Your task to perform on an android device: turn off notifications in google photos Image 0: 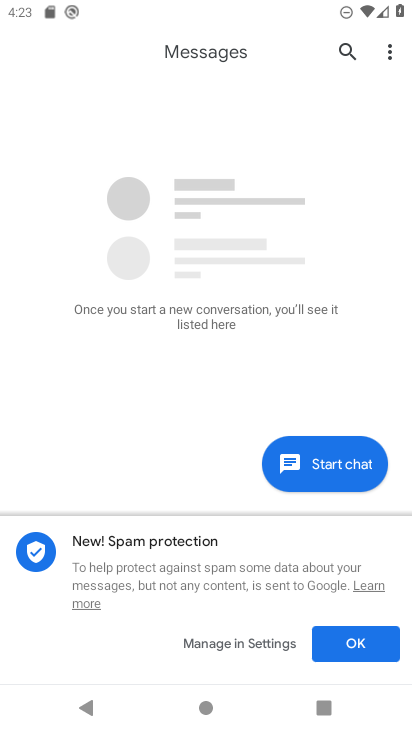
Step 0: press home button
Your task to perform on an android device: turn off notifications in google photos Image 1: 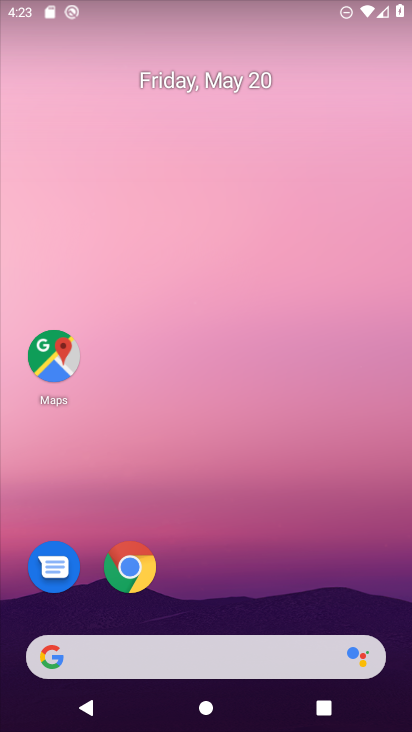
Step 1: drag from (245, 721) to (257, 151)
Your task to perform on an android device: turn off notifications in google photos Image 2: 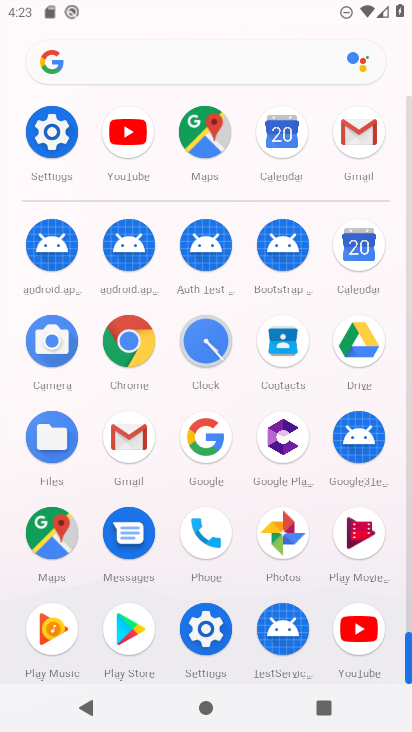
Step 2: click (280, 530)
Your task to perform on an android device: turn off notifications in google photos Image 3: 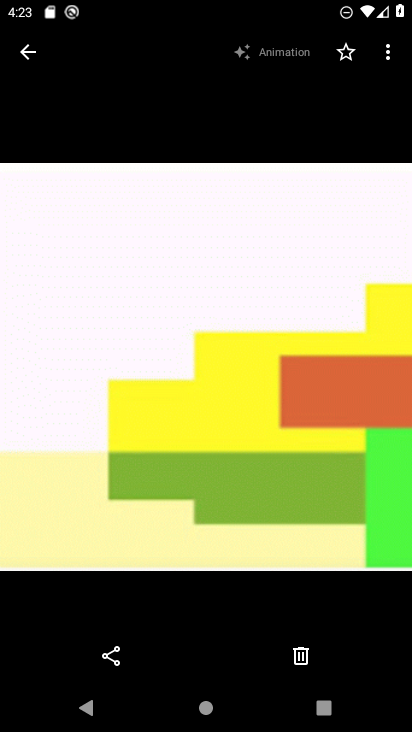
Step 3: click (27, 49)
Your task to perform on an android device: turn off notifications in google photos Image 4: 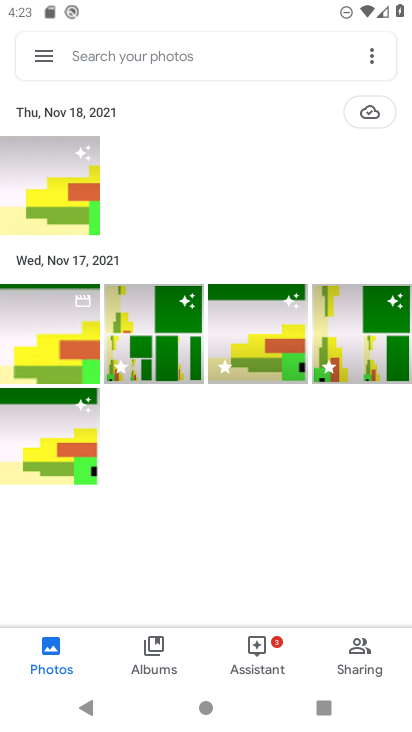
Step 4: click (47, 56)
Your task to perform on an android device: turn off notifications in google photos Image 5: 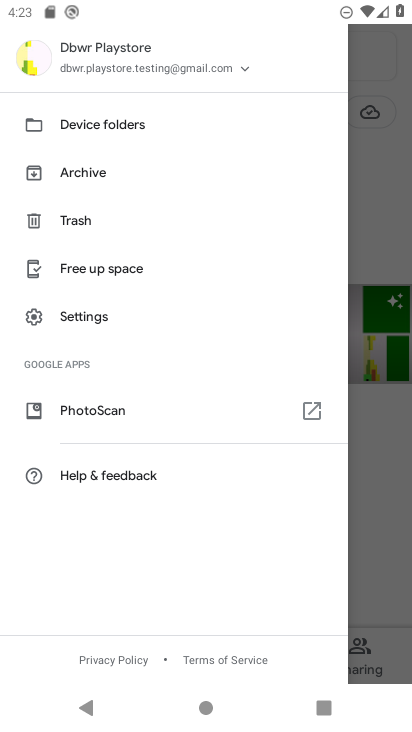
Step 5: click (97, 315)
Your task to perform on an android device: turn off notifications in google photos Image 6: 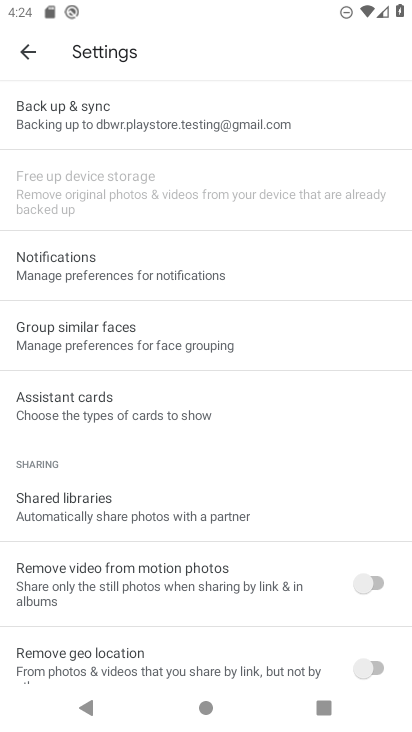
Step 6: click (80, 272)
Your task to perform on an android device: turn off notifications in google photos Image 7: 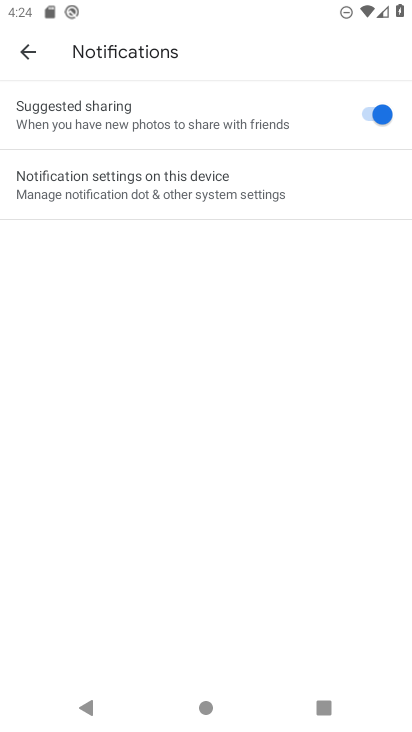
Step 7: click (129, 189)
Your task to perform on an android device: turn off notifications in google photos Image 8: 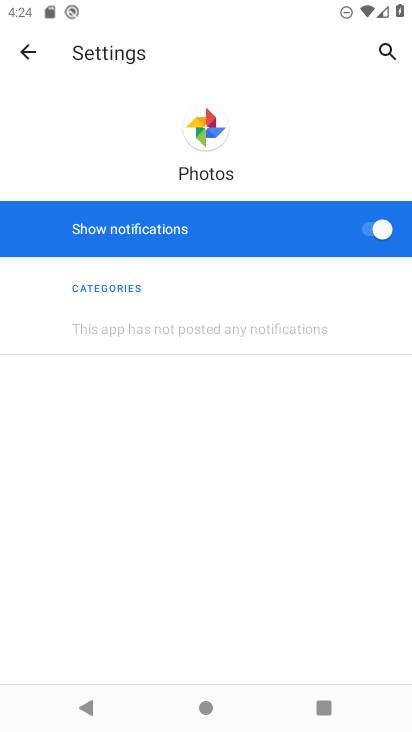
Step 8: click (366, 232)
Your task to perform on an android device: turn off notifications in google photos Image 9: 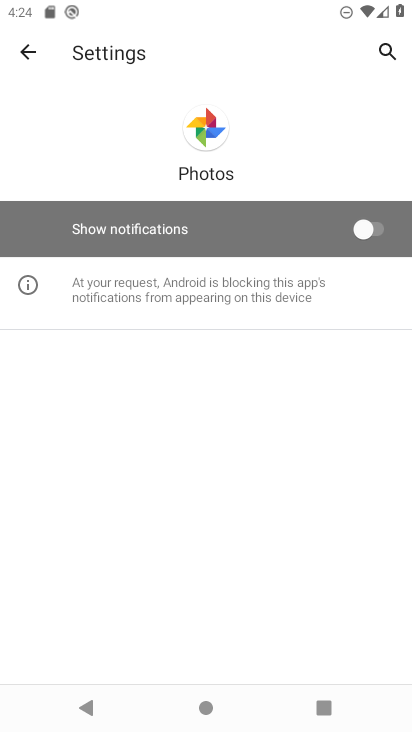
Step 9: task complete